Your task to perform on an android device: open app "PlayWell" Image 0: 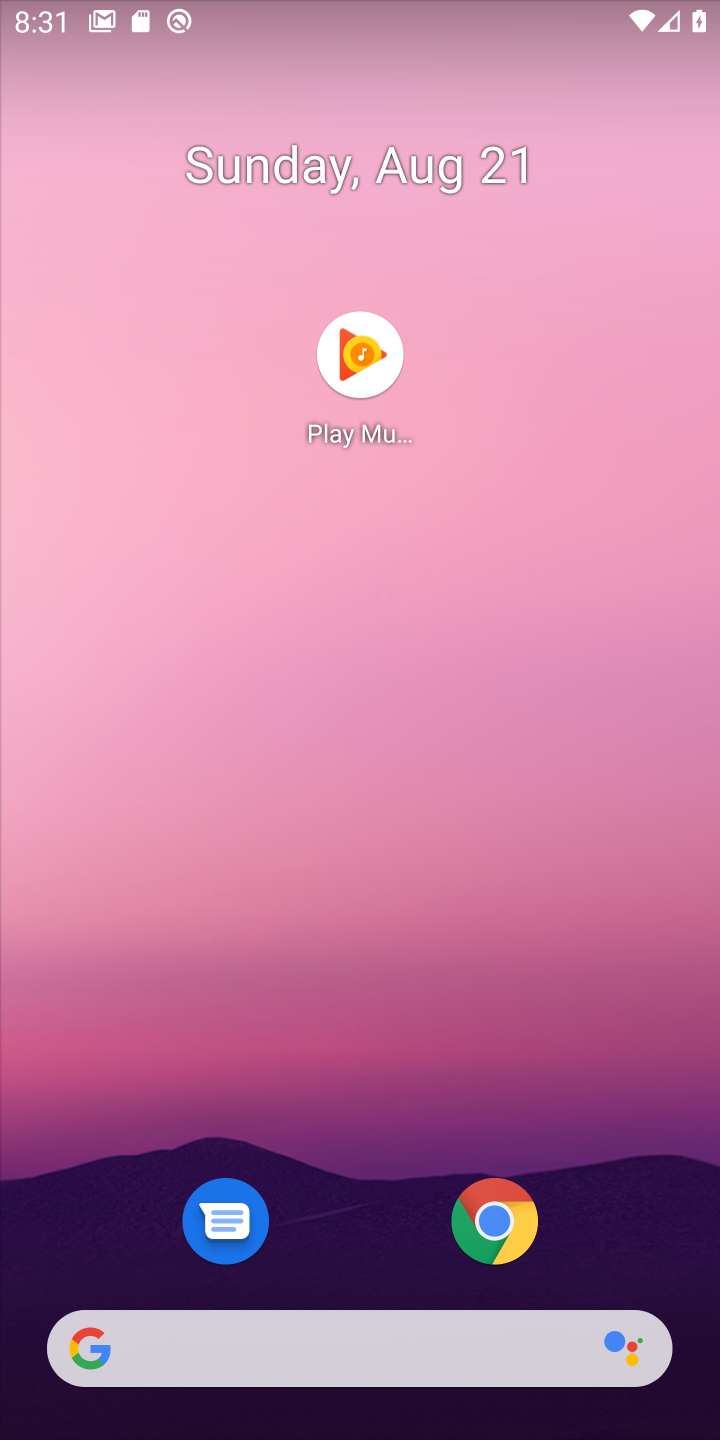
Step 0: drag from (372, 1281) to (372, 131)
Your task to perform on an android device: open app "PlayWell" Image 1: 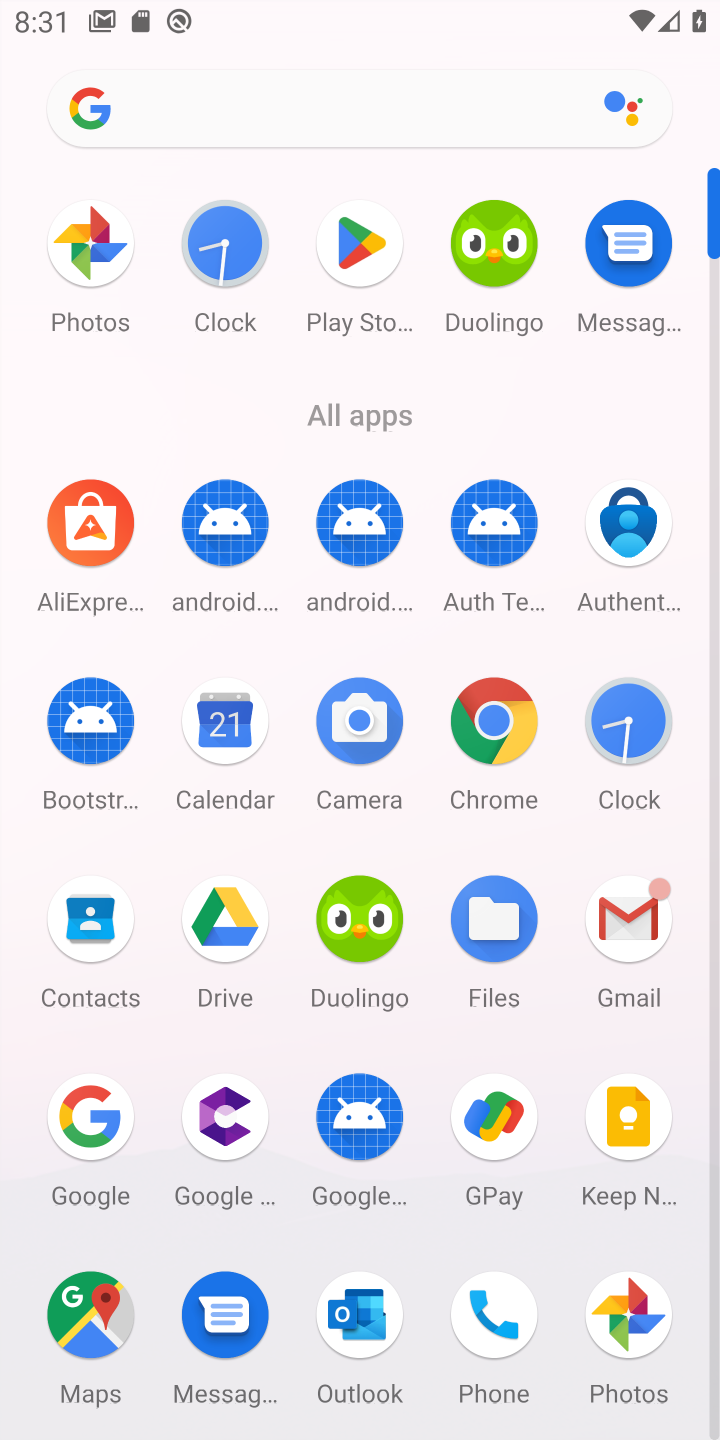
Step 1: drag from (418, 1279) to (441, 502)
Your task to perform on an android device: open app "PlayWell" Image 2: 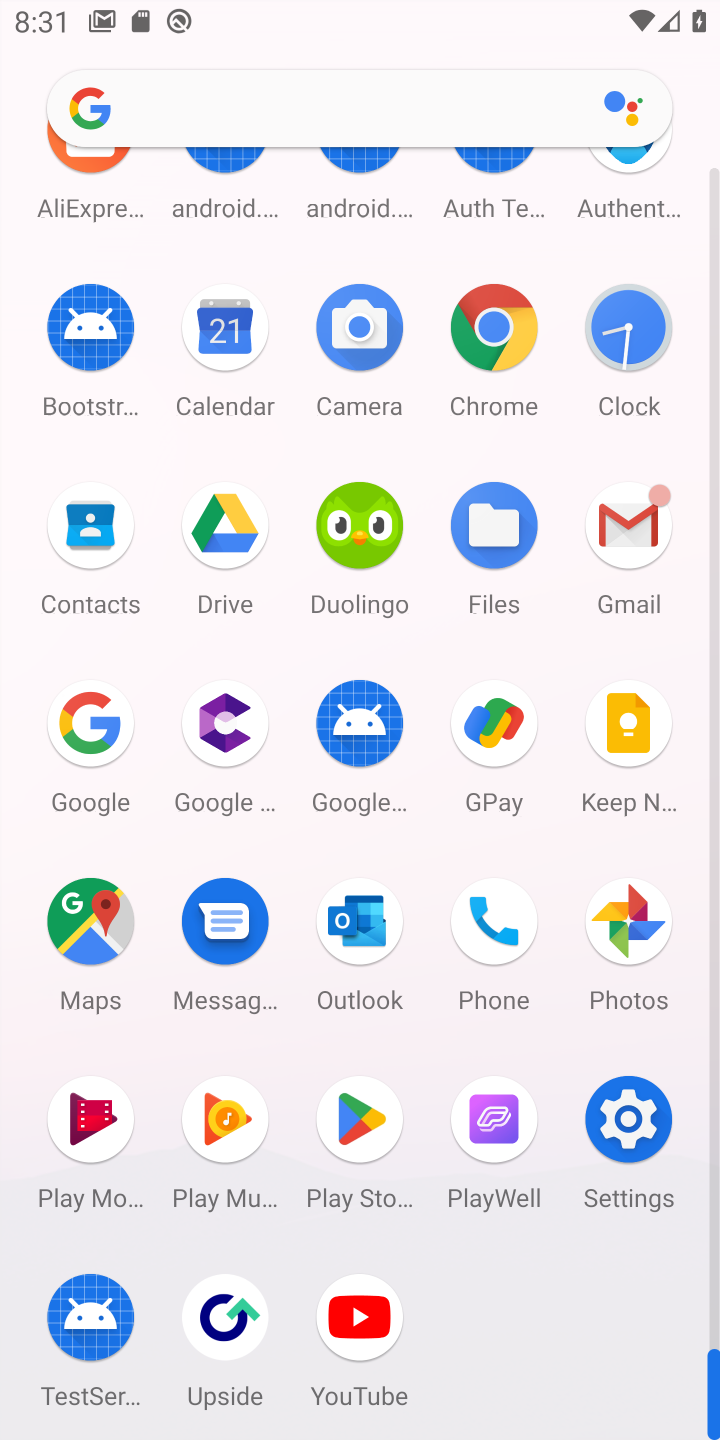
Step 2: click (492, 1118)
Your task to perform on an android device: open app "PlayWell" Image 3: 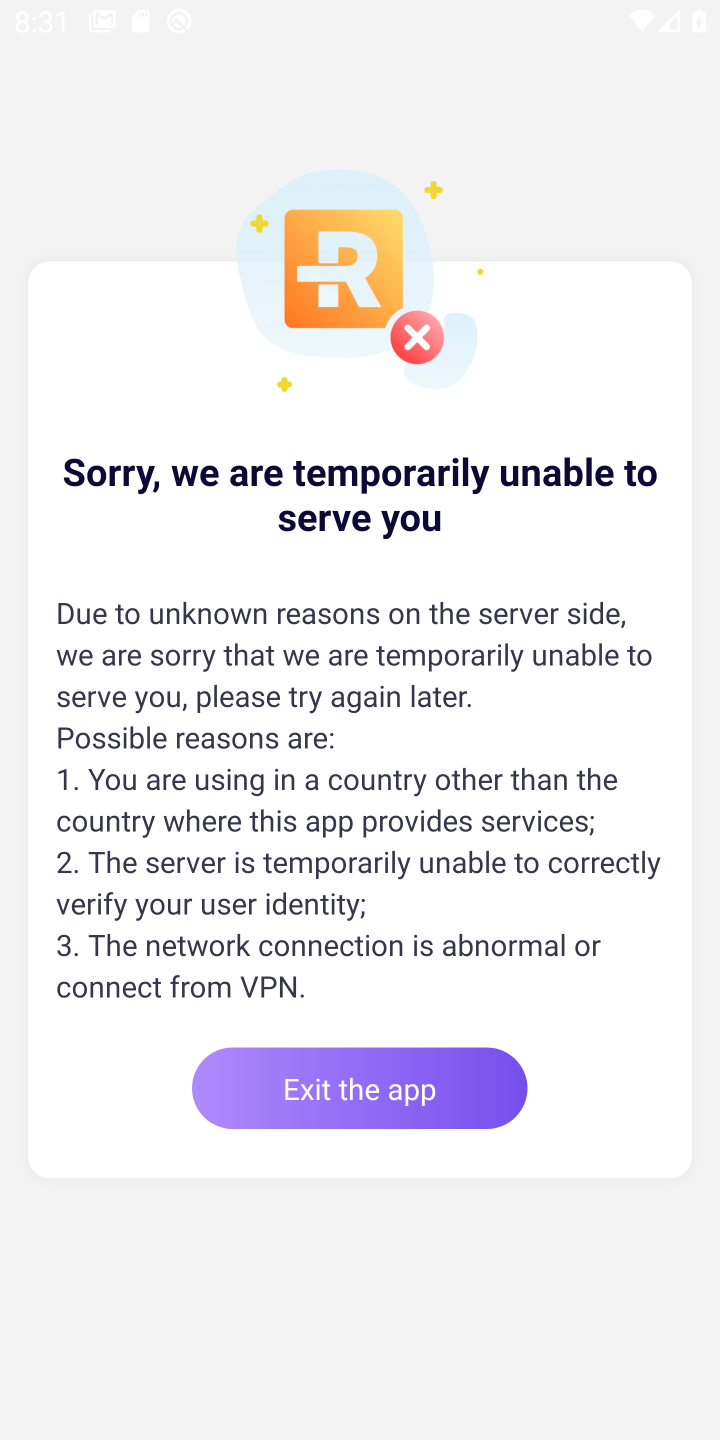
Step 3: task complete